Your task to perform on an android device: What is the recent news? Image 0: 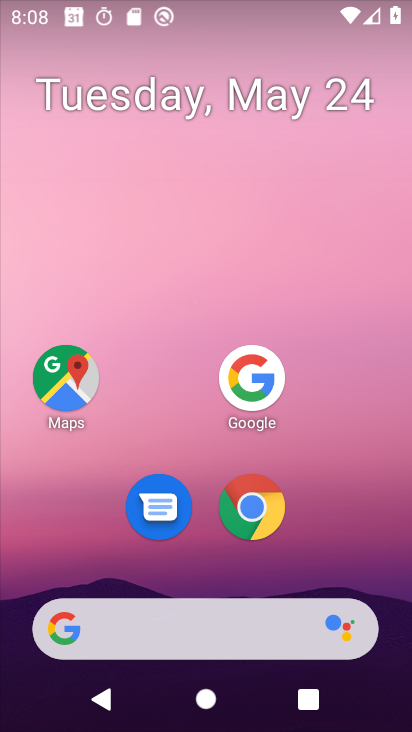
Step 0: press home button
Your task to perform on an android device: What is the recent news? Image 1: 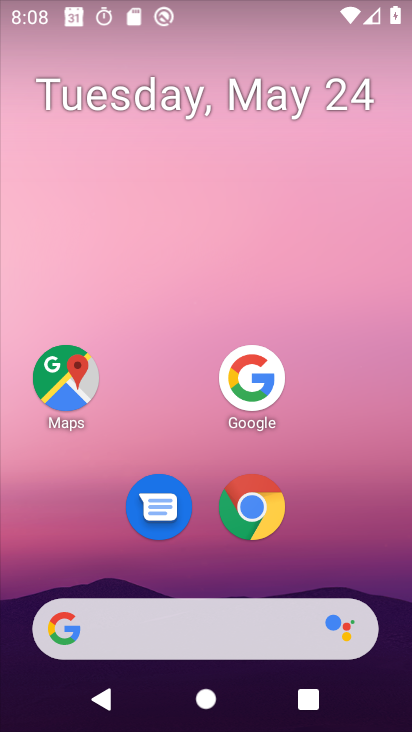
Step 1: click (69, 629)
Your task to perform on an android device: What is the recent news? Image 2: 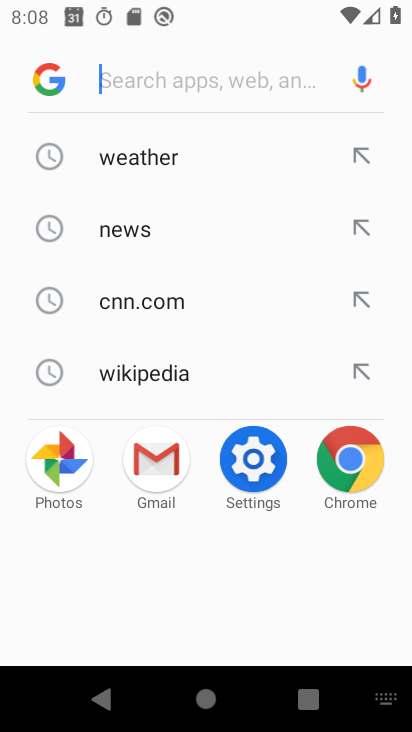
Step 2: click (132, 216)
Your task to perform on an android device: What is the recent news? Image 3: 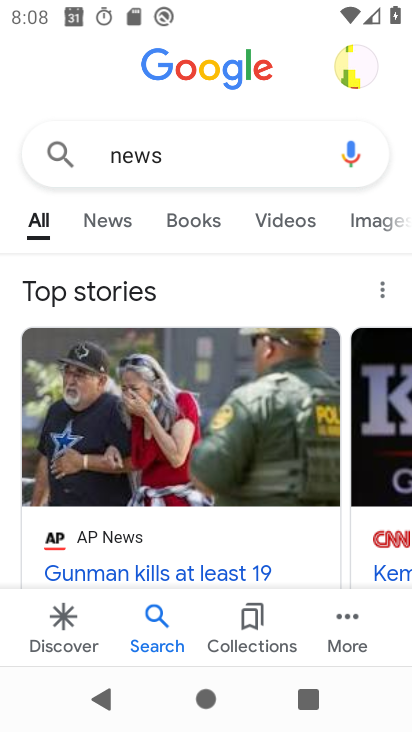
Step 3: click (113, 232)
Your task to perform on an android device: What is the recent news? Image 4: 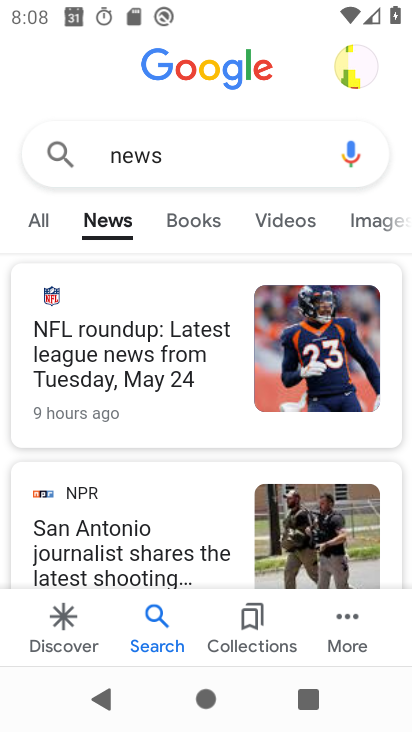
Step 4: task complete